Your task to perform on an android device: turn off javascript in the chrome app Image 0: 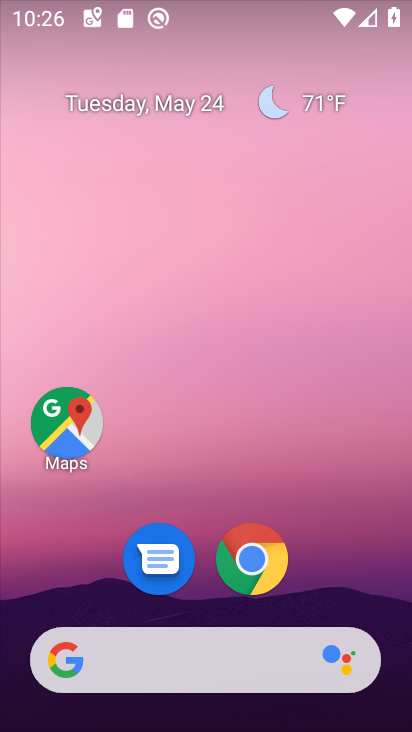
Step 0: drag from (399, 628) to (239, 22)
Your task to perform on an android device: turn off javascript in the chrome app Image 1: 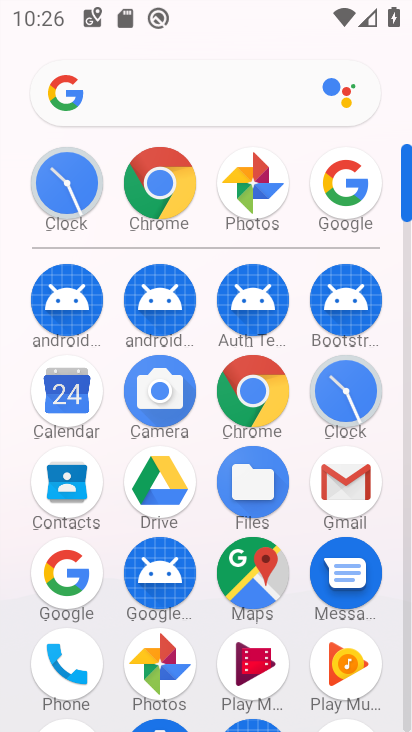
Step 1: click (261, 393)
Your task to perform on an android device: turn off javascript in the chrome app Image 2: 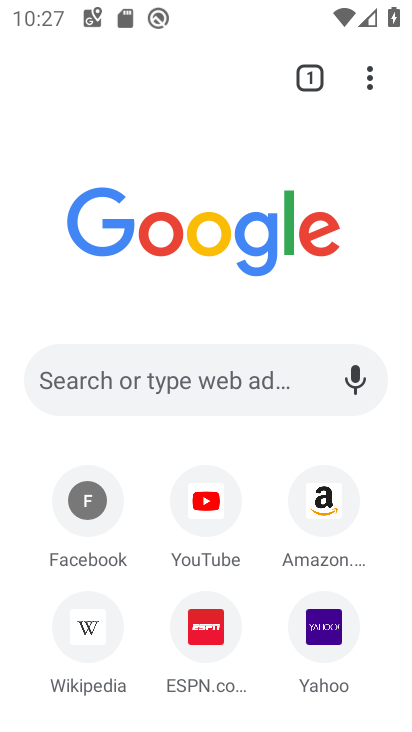
Step 2: click (376, 79)
Your task to perform on an android device: turn off javascript in the chrome app Image 3: 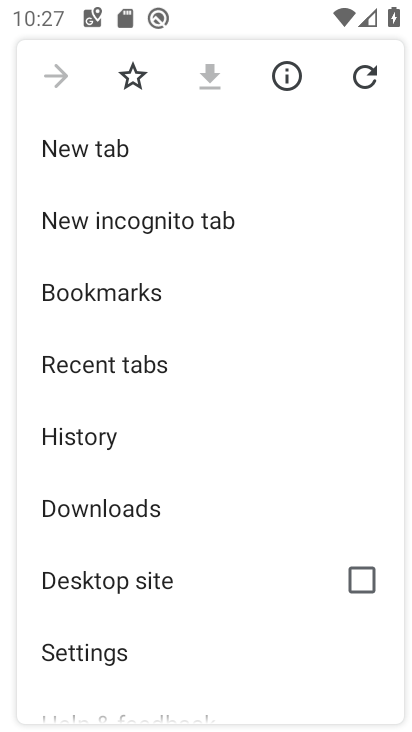
Step 3: drag from (157, 613) to (143, 151)
Your task to perform on an android device: turn off javascript in the chrome app Image 4: 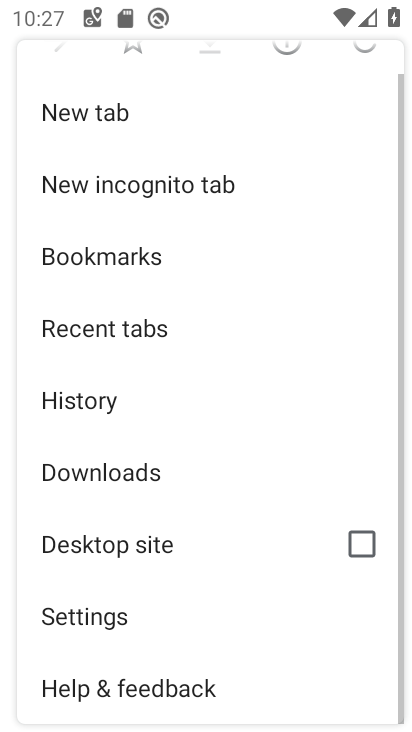
Step 4: click (120, 637)
Your task to perform on an android device: turn off javascript in the chrome app Image 5: 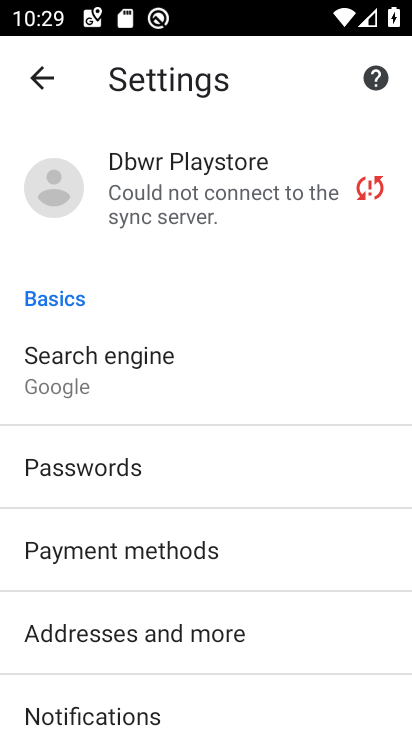
Step 5: drag from (198, 648) to (244, 156)
Your task to perform on an android device: turn off javascript in the chrome app Image 6: 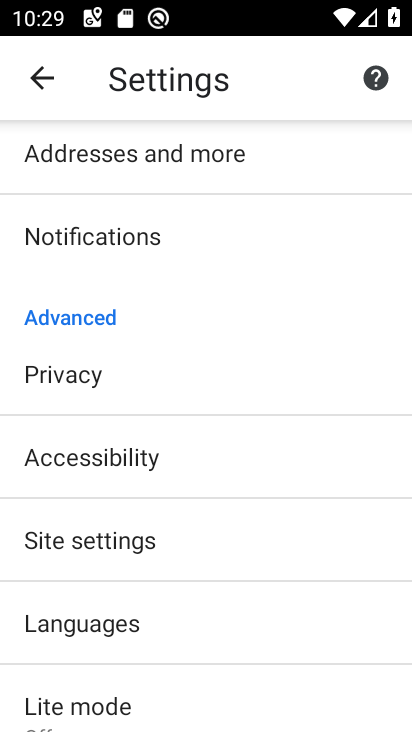
Step 6: click (162, 548)
Your task to perform on an android device: turn off javascript in the chrome app Image 7: 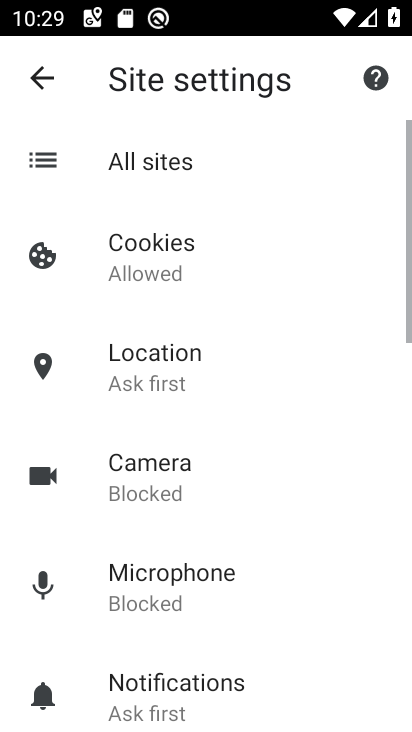
Step 7: drag from (193, 647) to (246, 282)
Your task to perform on an android device: turn off javascript in the chrome app Image 8: 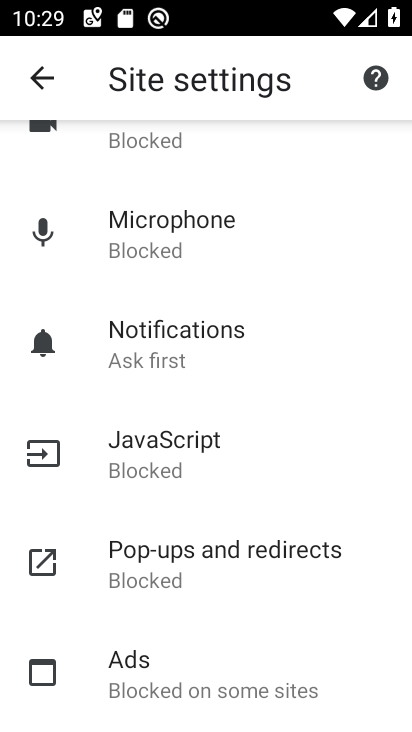
Step 8: click (192, 460)
Your task to perform on an android device: turn off javascript in the chrome app Image 9: 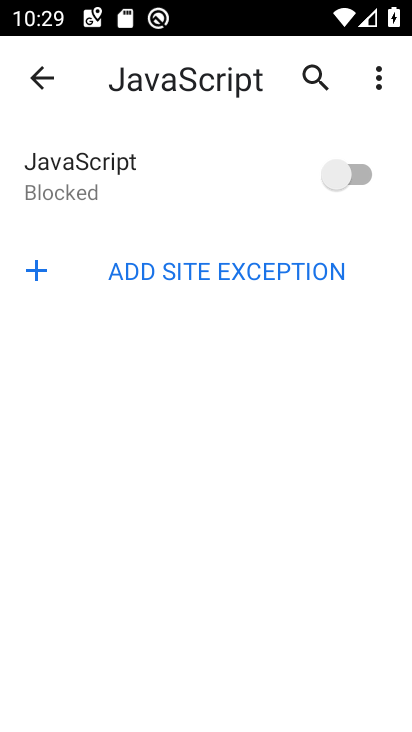
Step 9: task complete